Your task to perform on an android device: search for starred emails in the gmail app Image 0: 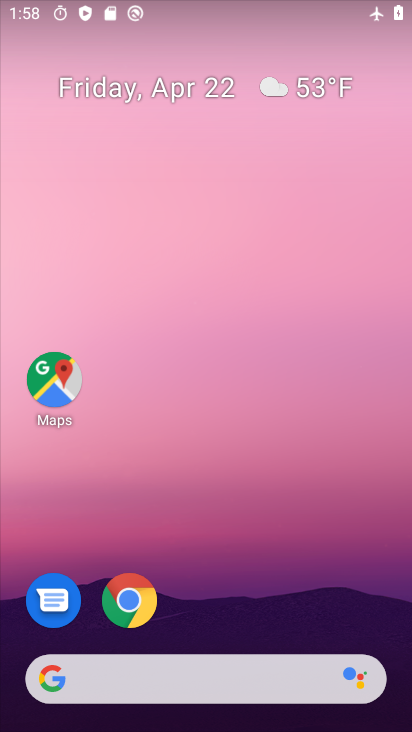
Step 0: drag from (223, 688) to (214, 131)
Your task to perform on an android device: search for starred emails in the gmail app Image 1: 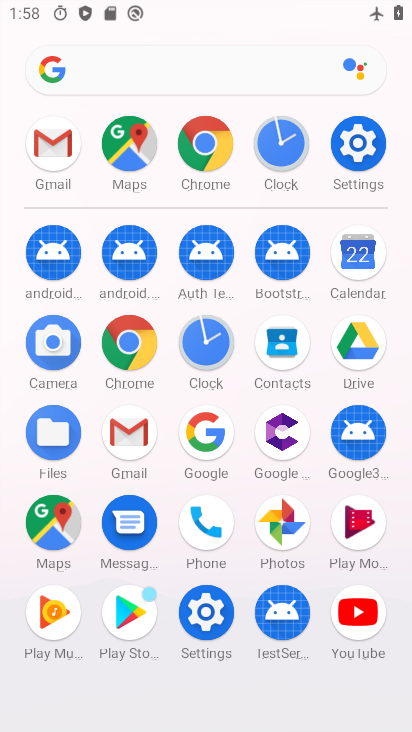
Step 1: click (51, 141)
Your task to perform on an android device: search for starred emails in the gmail app Image 2: 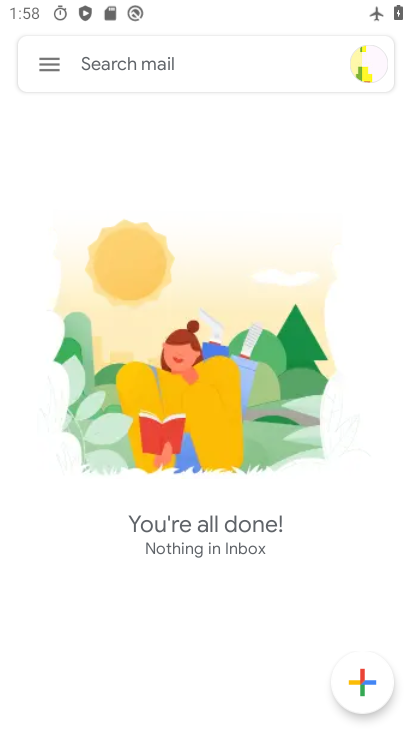
Step 2: click (50, 64)
Your task to perform on an android device: search for starred emails in the gmail app Image 3: 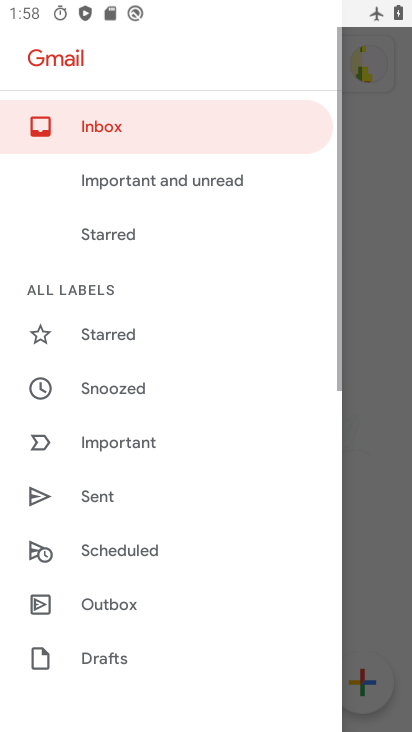
Step 3: click (115, 328)
Your task to perform on an android device: search for starred emails in the gmail app Image 4: 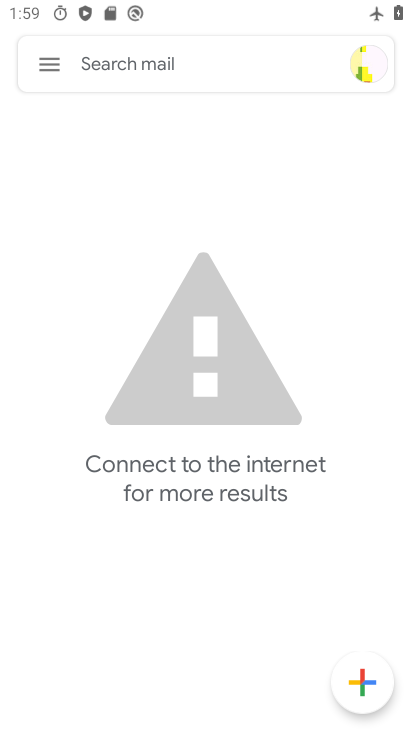
Step 4: task complete